Your task to perform on an android device: Open Youtube and go to "Your channel" Image 0: 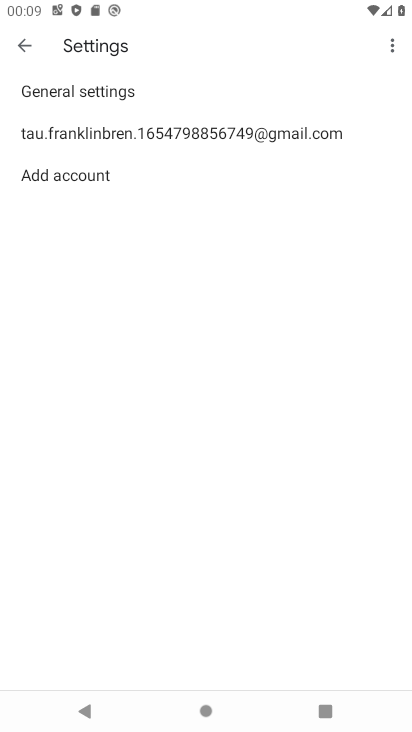
Step 0: press home button
Your task to perform on an android device: Open Youtube and go to "Your channel" Image 1: 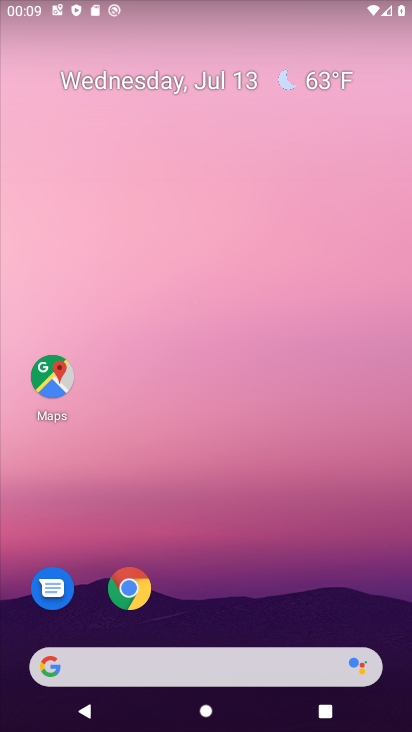
Step 1: drag from (27, 700) to (171, 313)
Your task to perform on an android device: Open Youtube and go to "Your channel" Image 2: 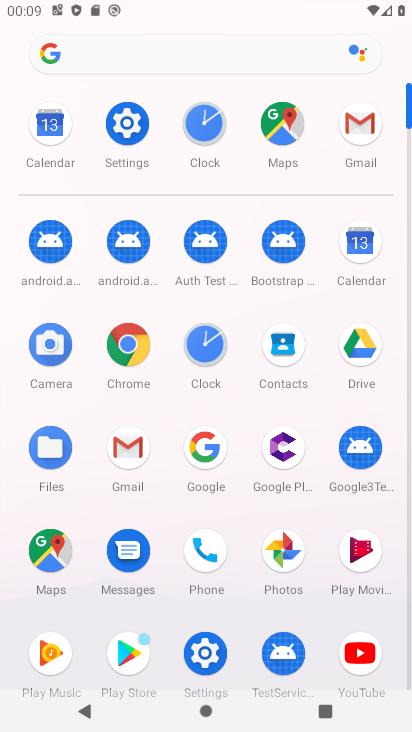
Step 2: click (356, 652)
Your task to perform on an android device: Open Youtube and go to "Your channel" Image 3: 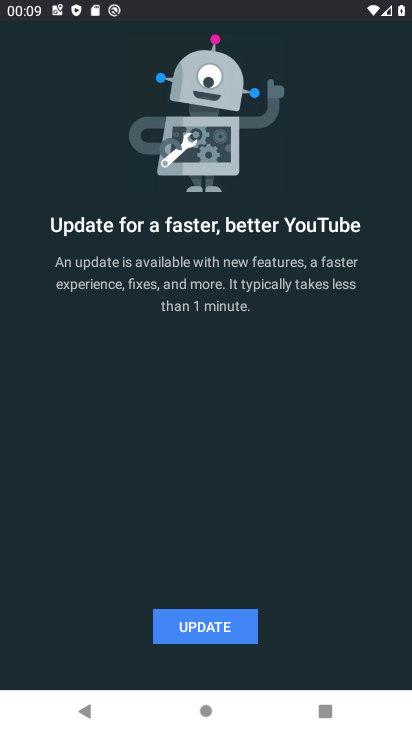
Step 3: click (227, 628)
Your task to perform on an android device: Open Youtube and go to "Your channel" Image 4: 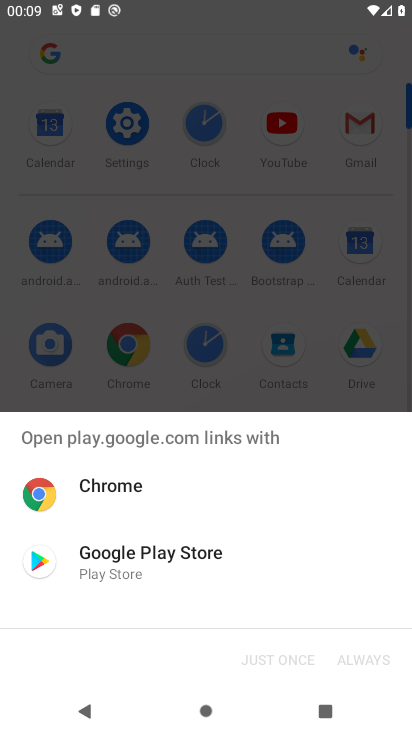
Step 4: click (126, 565)
Your task to perform on an android device: Open Youtube and go to "Your channel" Image 5: 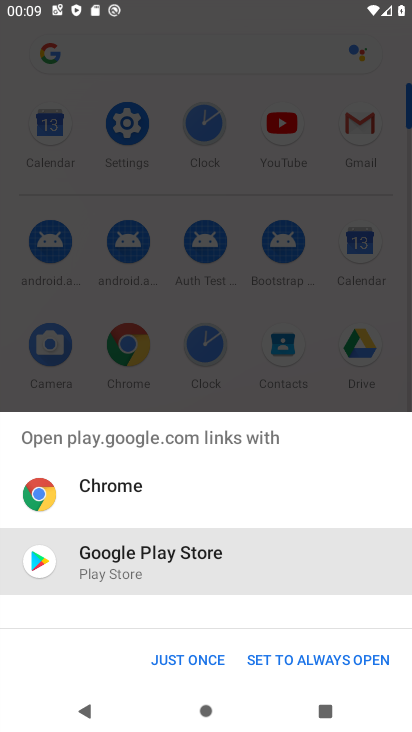
Step 5: click (201, 647)
Your task to perform on an android device: Open Youtube and go to "Your channel" Image 6: 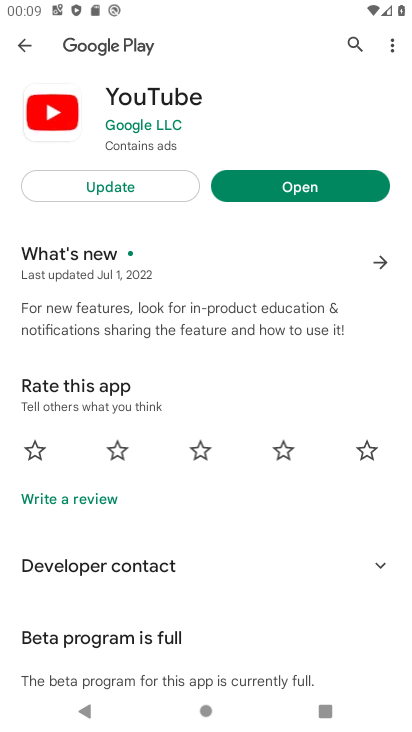
Step 6: click (263, 181)
Your task to perform on an android device: Open Youtube and go to "Your channel" Image 7: 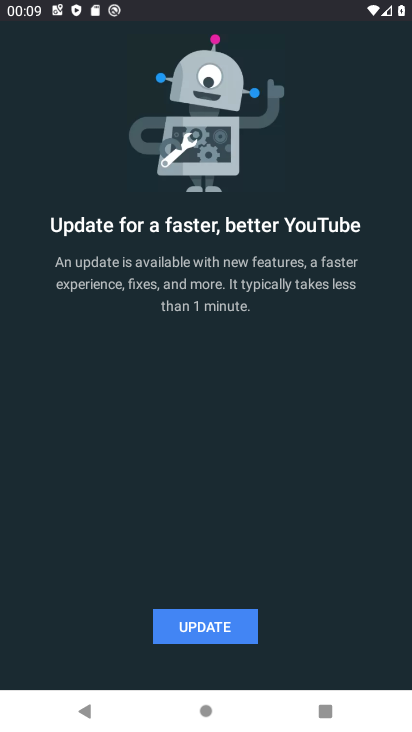
Step 7: task complete